Your task to perform on an android device: open app "Facebook" Image 0: 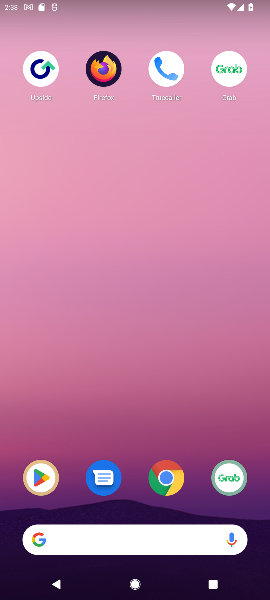
Step 0: press home button
Your task to perform on an android device: open app "Facebook" Image 1: 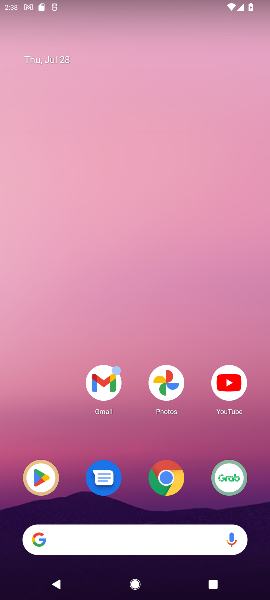
Step 1: drag from (54, 413) to (64, 3)
Your task to perform on an android device: open app "Facebook" Image 2: 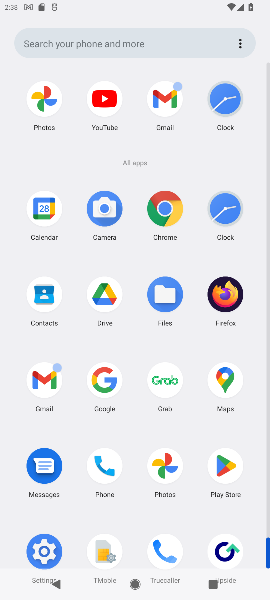
Step 2: click (218, 474)
Your task to perform on an android device: open app "Facebook" Image 3: 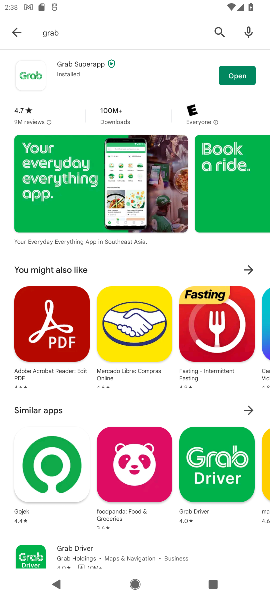
Step 3: click (162, 35)
Your task to perform on an android device: open app "Facebook" Image 4: 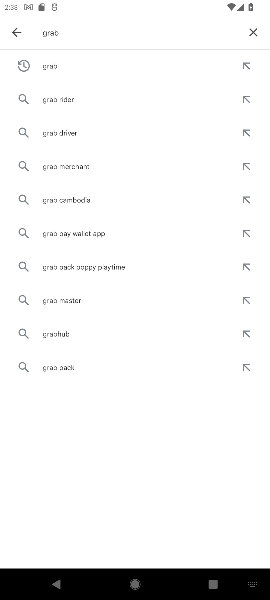
Step 4: click (17, 32)
Your task to perform on an android device: open app "Facebook" Image 5: 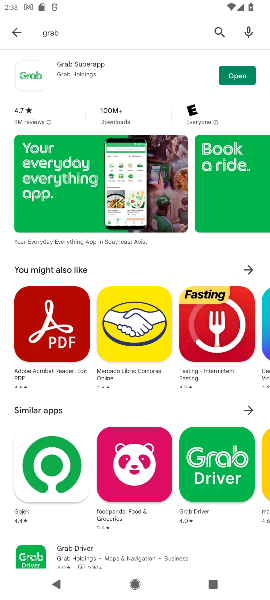
Step 5: click (11, 29)
Your task to perform on an android device: open app "Facebook" Image 6: 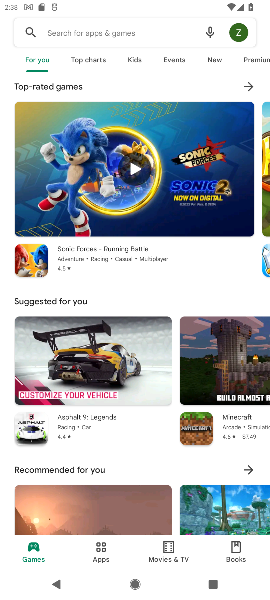
Step 6: type "Facebook"
Your task to perform on an android device: open app "Facebook" Image 7: 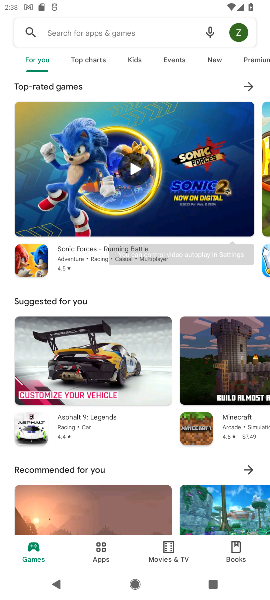
Step 7: click (64, 30)
Your task to perform on an android device: open app "Facebook" Image 8: 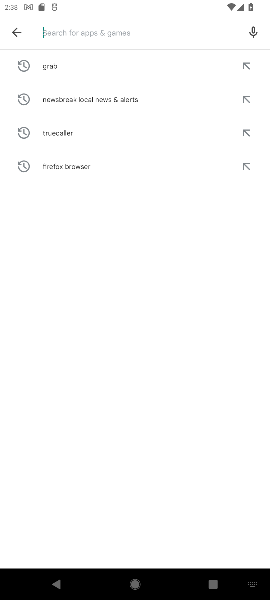
Step 8: click (66, 29)
Your task to perform on an android device: open app "Facebook" Image 9: 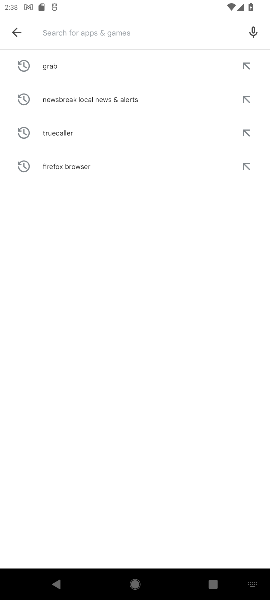
Step 9: type "Facebook"
Your task to perform on an android device: open app "Facebook" Image 10: 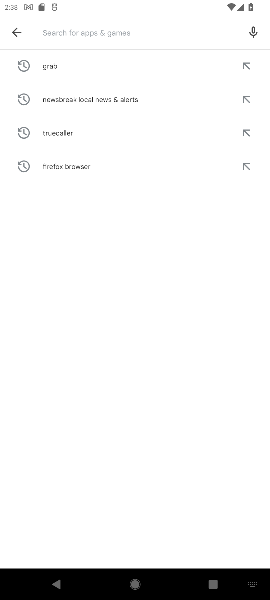
Step 10: click (98, 34)
Your task to perform on an android device: open app "Facebook" Image 11: 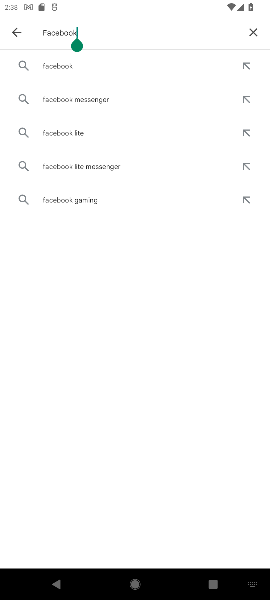
Step 11: click (60, 62)
Your task to perform on an android device: open app "Facebook" Image 12: 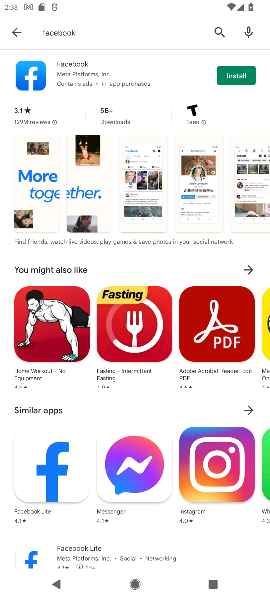
Step 12: click (245, 78)
Your task to perform on an android device: open app "Facebook" Image 13: 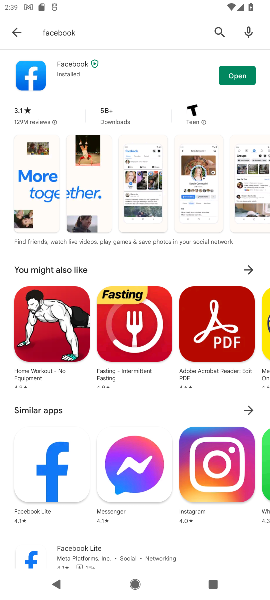
Step 13: click (248, 72)
Your task to perform on an android device: open app "Facebook" Image 14: 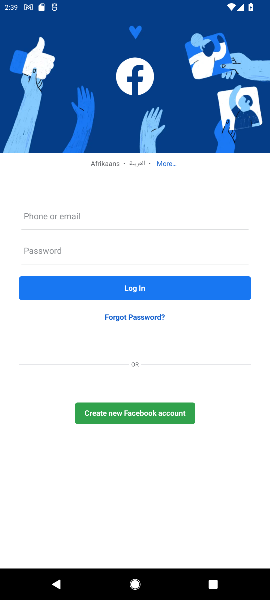
Step 14: task complete